Your task to perform on an android device: turn vacation reply on in the gmail app Image 0: 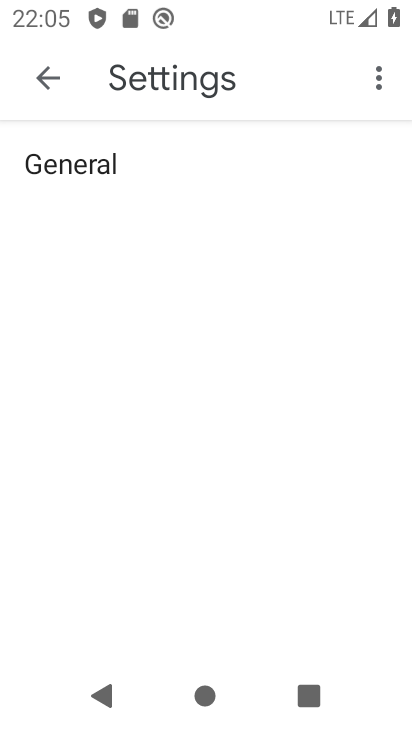
Step 0: press home button
Your task to perform on an android device: turn vacation reply on in the gmail app Image 1: 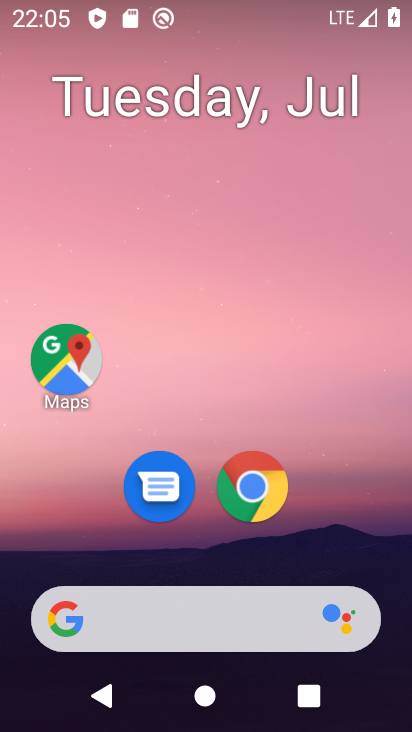
Step 1: drag from (360, 548) to (373, 126)
Your task to perform on an android device: turn vacation reply on in the gmail app Image 2: 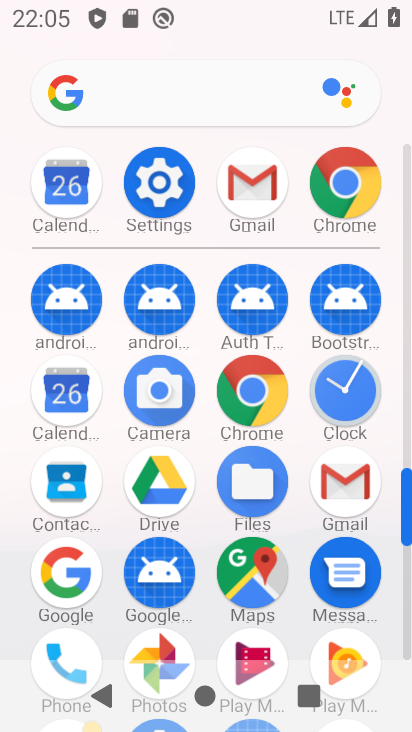
Step 2: click (259, 187)
Your task to perform on an android device: turn vacation reply on in the gmail app Image 3: 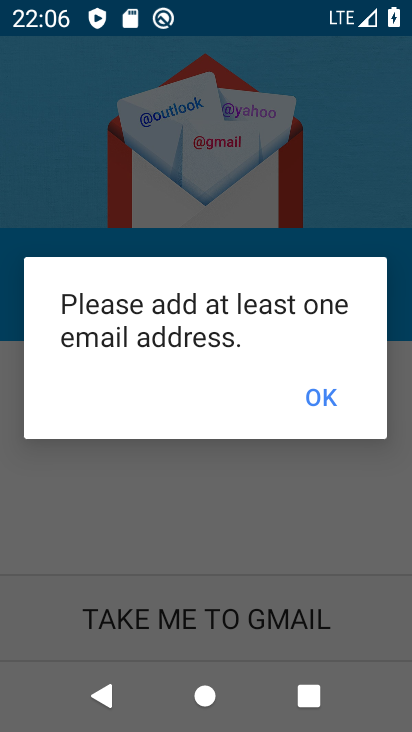
Step 3: task complete